Your task to perform on an android device: Open accessibility settings Image 0: 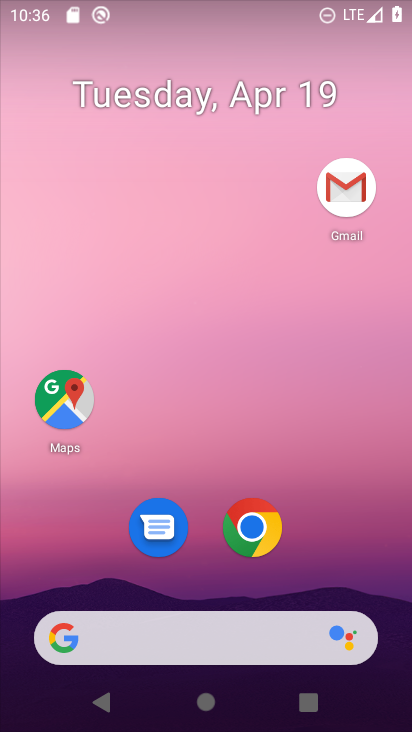
Step 0: drag from (372, 320) to (370, 101)
Your task to perform on an android device: Open accessibility settings Image 1: 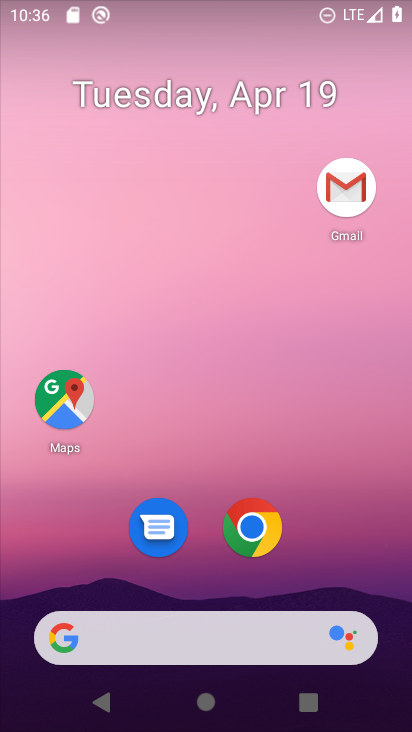
Step 1: drag from (366, 486) to (401, 94)
Your task to perform on an android device: Open accessibility settings Image 2: 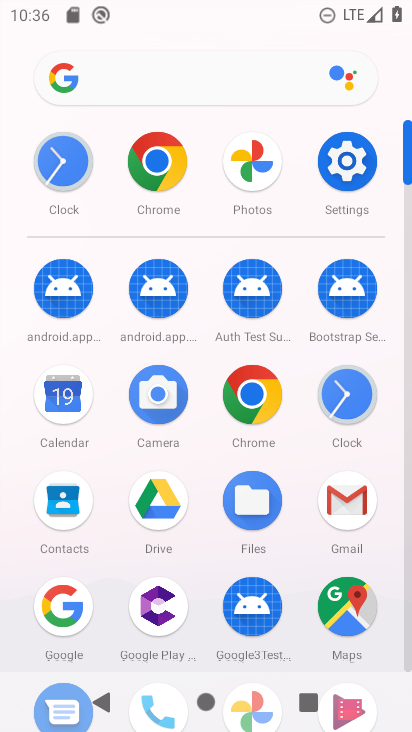
Step 2: click (356, 173)
Your task to perform on an android device: Open accessibility settings Image 3: 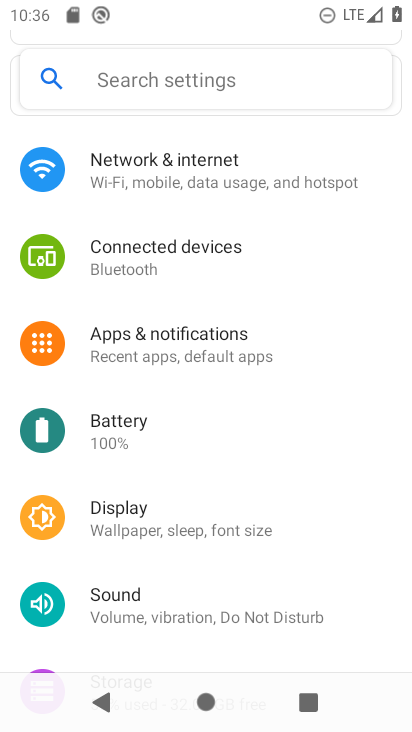
Step 3: drag from (317, 565) to (354, 261)
Your task to perform on an android device: Open accessibility settings Image 4: 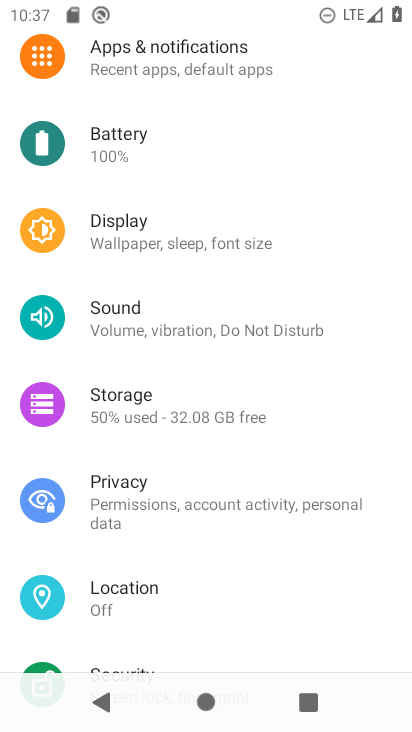
Step 4: drag from (268, 589) to (337, 266)
Your task to perform on an android device: Open accessibility settings Image 5: 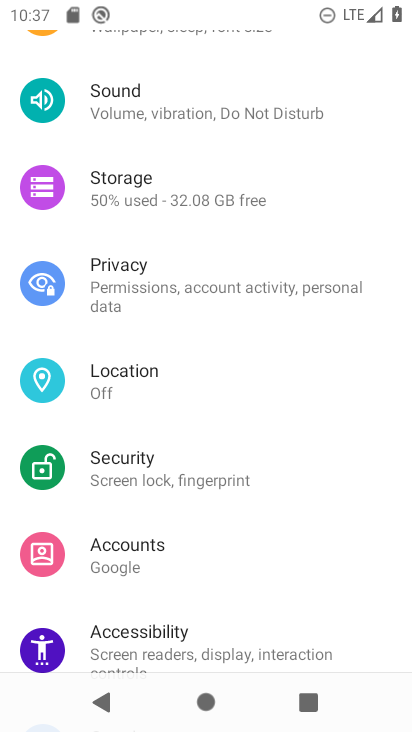
Step 5: click (193, 637)
Your task to perform on an android device: Open accessibility settings Image 6: 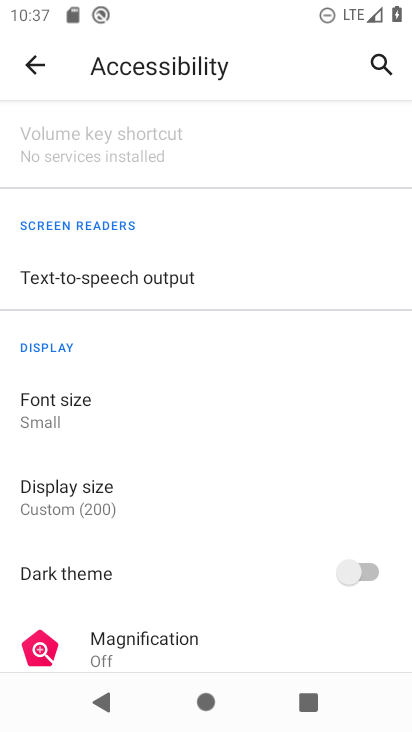
Step 6: task complete